Your task to perform on an android device: turn off wifi Image 0: 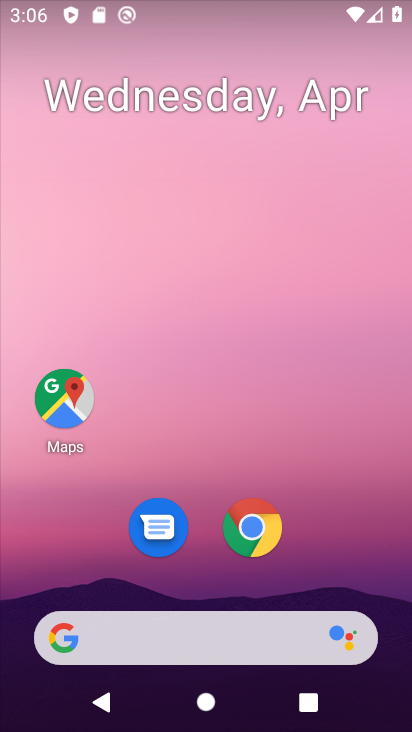
Step 0: drag from (212, 535) to (269, 121)
Your task to perform on an android device: turn off wifi Image 1: 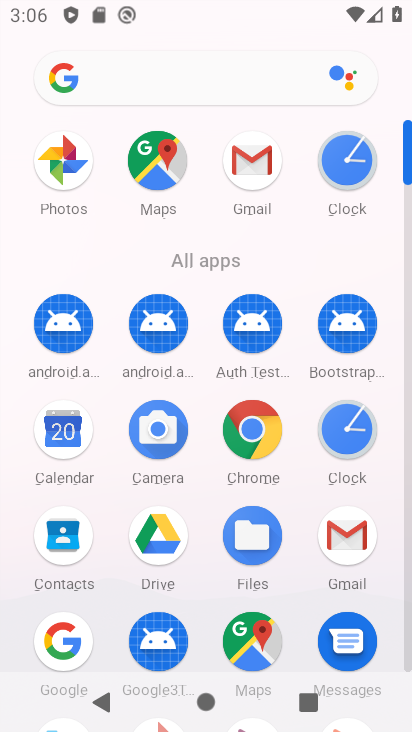
Step 1: drag from (211, 512) to (224, 71)
Your task to perform on an android device: turn off wifi Image 2: 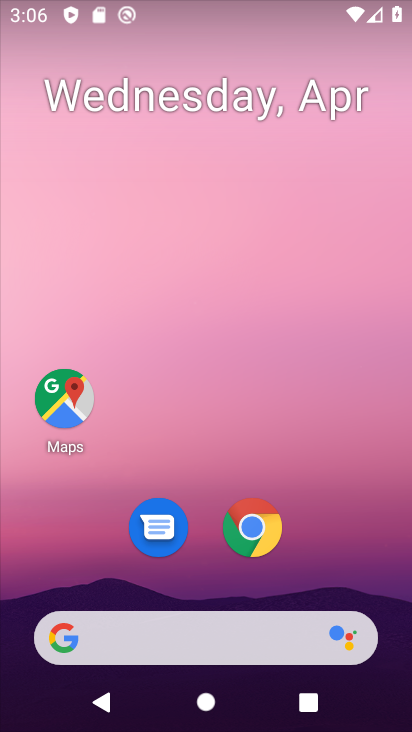
Step 2: drag from (197, 456) to (204, 68)
Your task to perform on an android device: turn off wifi Image 3: 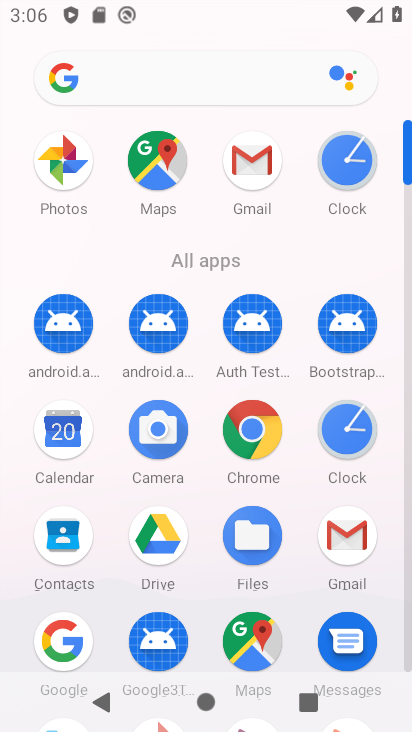
Step 3: drag from (200, 552) to (203, 239)
Your task to perform on an android device: turn off wifi Image 4: 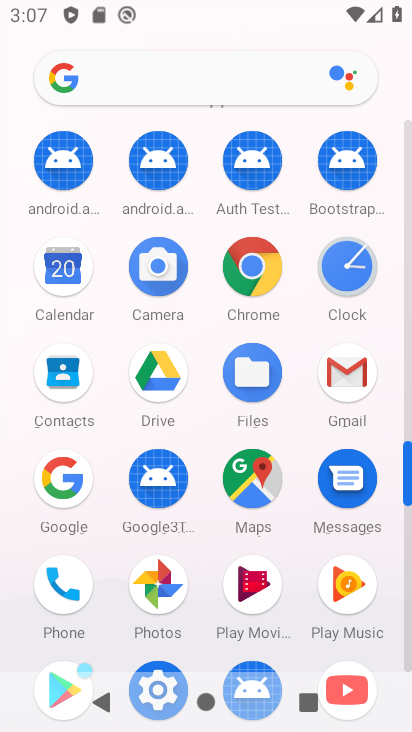
Step 4: drag from (195, 596) to (209, 305)
Your task to perform on an android device: turn off wifi Image 5: 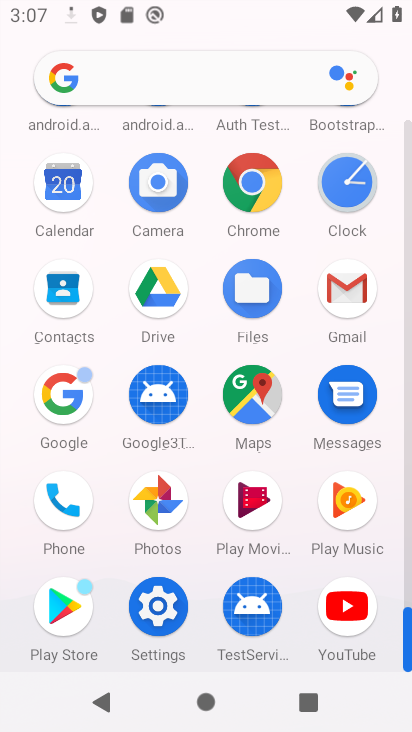
Step 5: click (161, 625)
Your task to perform on an android device: turn off wifi Image 6: 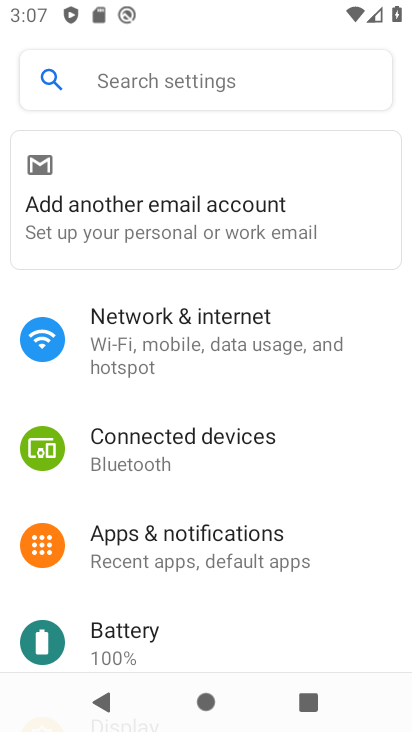
Step 6: click (193, 338)
Your task to perform on an android device: turn off wifi Image 7: 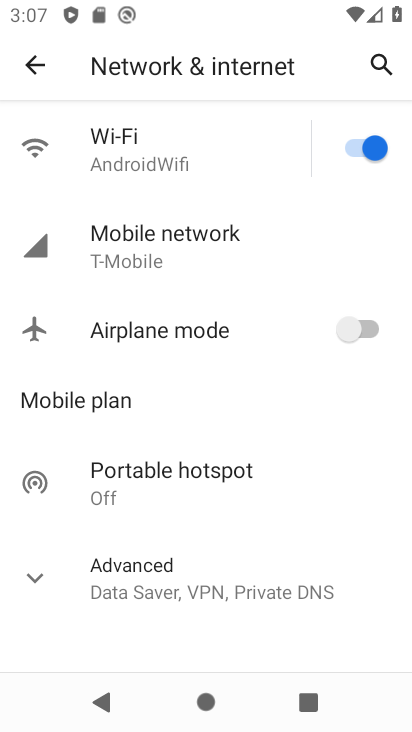
Step 7: click (355, 153)
Your task to perform on an android device: turn off wifi Image 8: 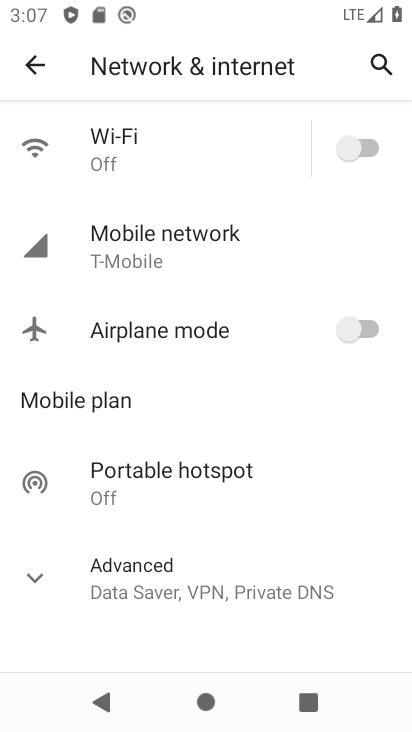
Step 8: task complete